Your task to perform on an android device: Open Google Maps and go to "Timeline" Image 0: 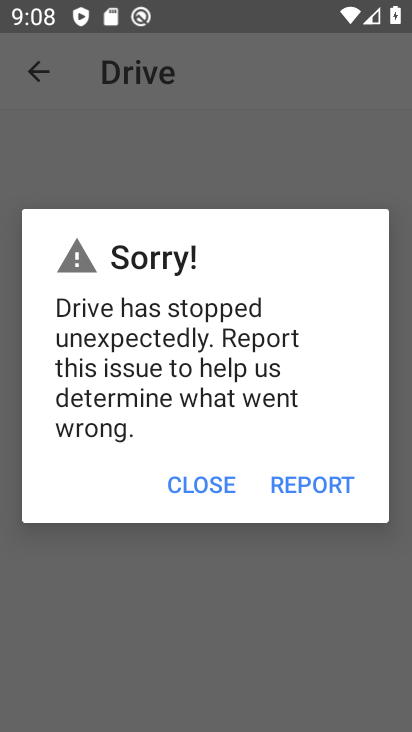
Step 0: click (187, 485)
Your task to perform on an android device: Open Google Maps and go to "Timeline" Image 1: 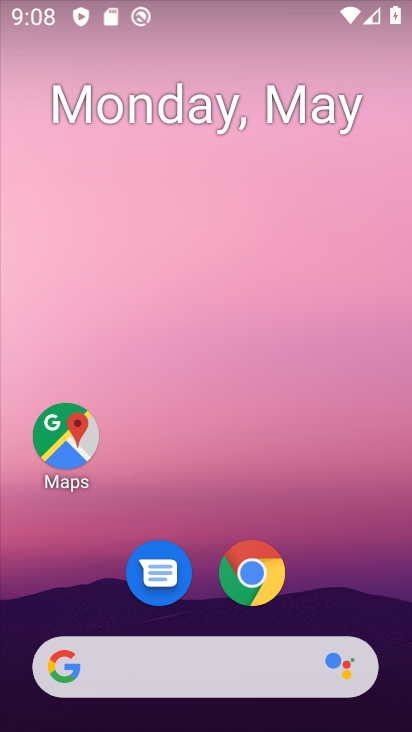
Step 1: drag from (314, 564) to (198, 74)
Your task to perform on an android device: Open Google Maps and go to "Timeline" Image 2: 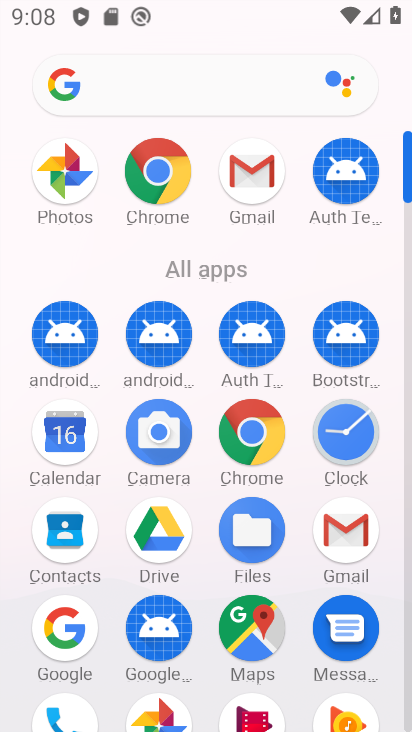
Step 2: click (241, 613)
Your task to perform on an android device: Open Google Maps and go to "Timeline" Image 3: 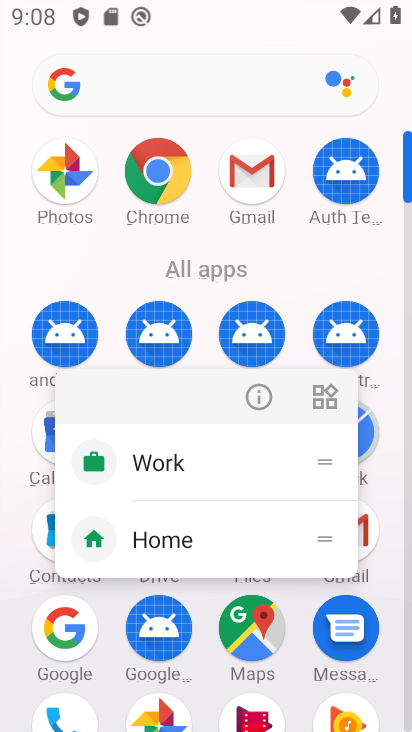
Step 3: click (250, 596)
Your task to perform on an android device: Open Google Maps and go to "Timeline" Image 4: 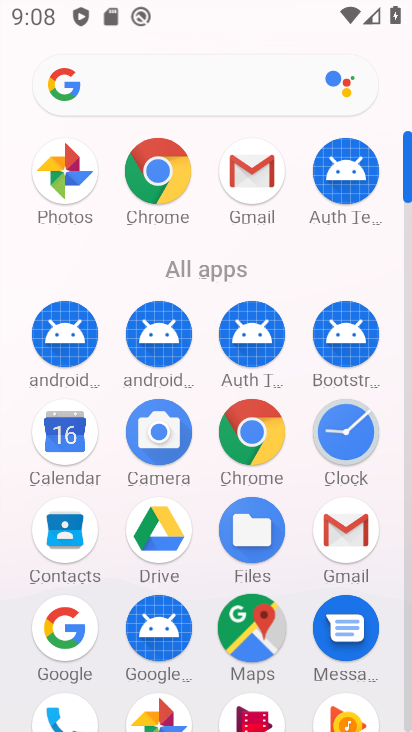
Step 4: click (252, 650)
Your task to perform on an android device: Open Google Maps and go to "Timeline" Image 5: 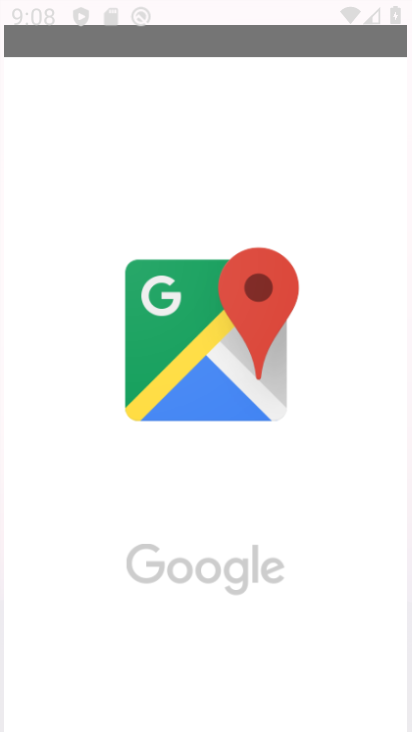
Step 5: click (253, 649)
Your task to perform on an android device: Open Google Maps and go to "Timeline" Image 6: 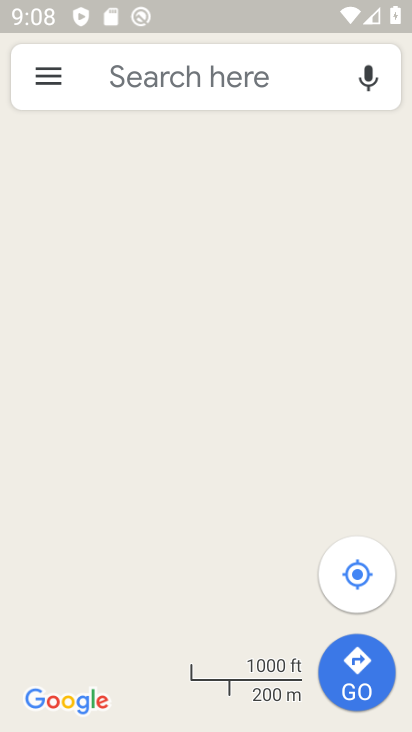
Step 6: click (51, 79)
Your task to perform on an android device: Open Google Maps and go to "Timeline" Image 7: 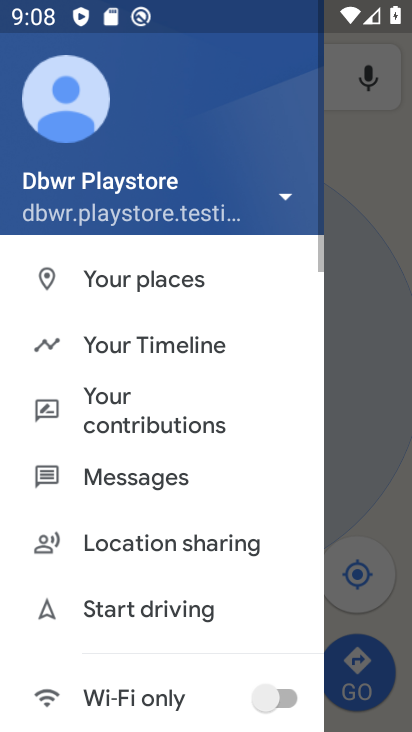
Step 7: click (165, 352)
Your task to perform on an android device: Open Google Maps and go to "Timeline" Image 8: 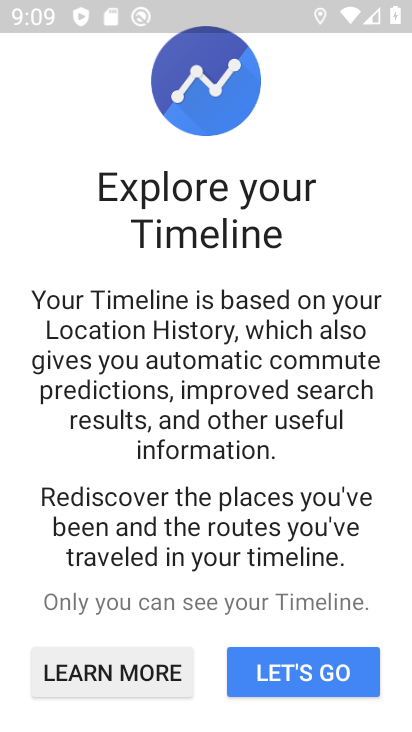
Step 8: click (306, 673)
Your task to perform on an android device: Open Google Maps and go to "Timeline" Image 9: 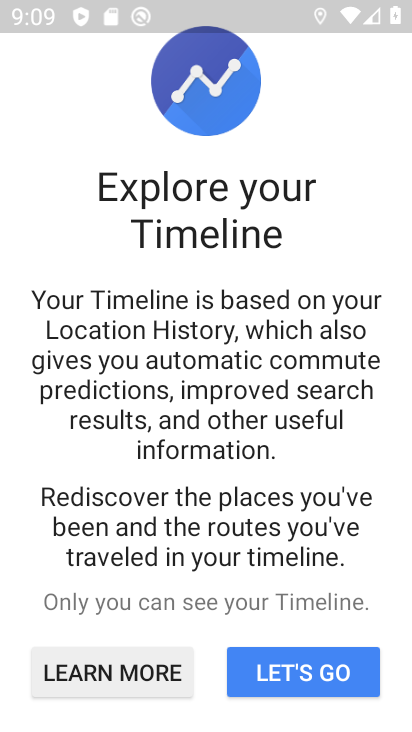
Step 9: click (308, 680)
Your task to perform on an android device: Open Google Maps and go to "Timeline" Image 10: 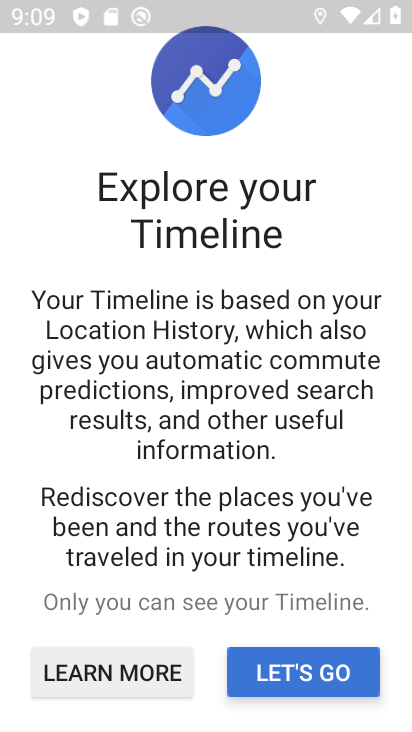
Step 10: click (308, 680)
Your task to perform on an android device: Open Google Maps and go to "Timeline" Image 11: 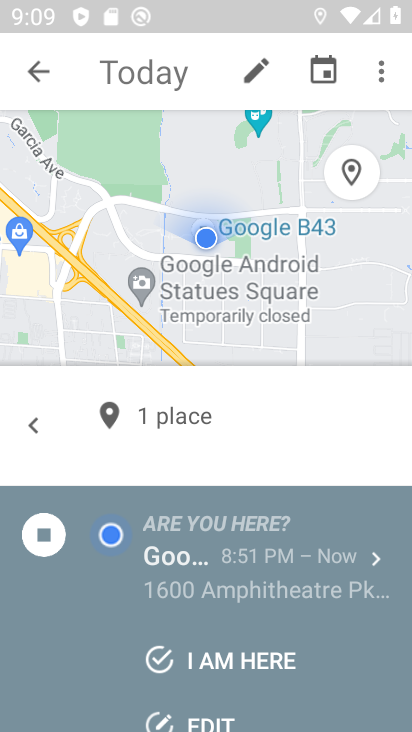
Step 11: task complete